Your task to perform on an android device: set the stopwatch Image 0: 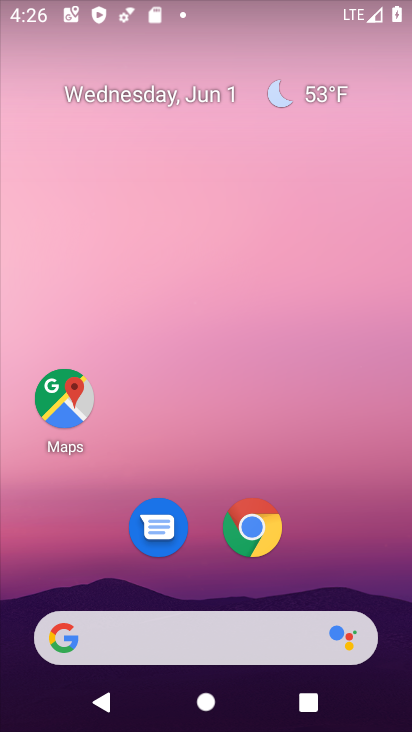
Step 0: drag from (341, 536) to (363, 65)
Your task to perform on an android device: set the stopwatch Image 1: 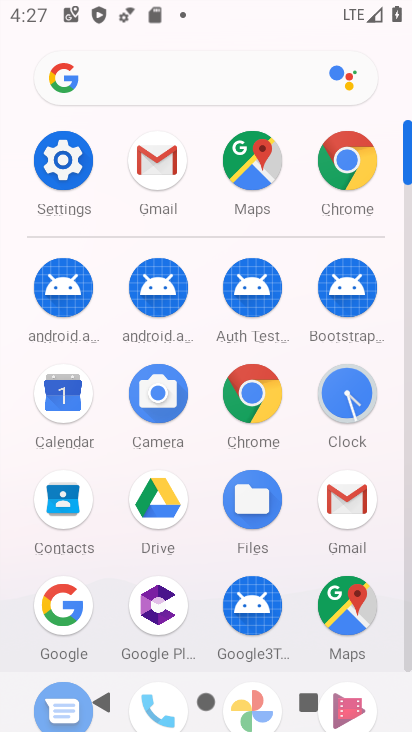
Step 1: click (347, 404)
Your task to perform on an android device: set the stopwatch Image 2: 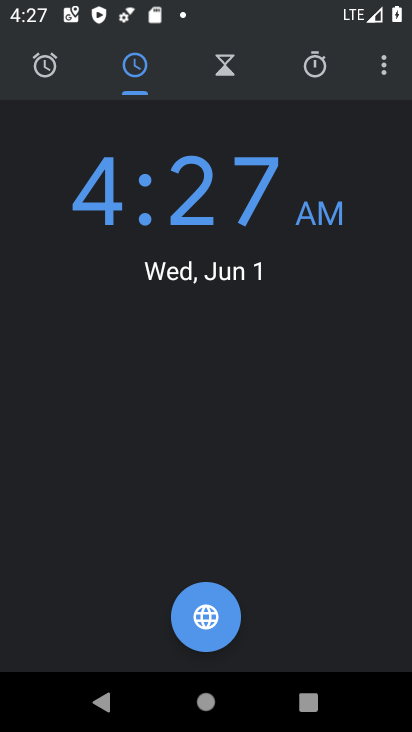
Step 2: click (315, 71)
Your task to perform on an android device: set the stopwatch Image 3: 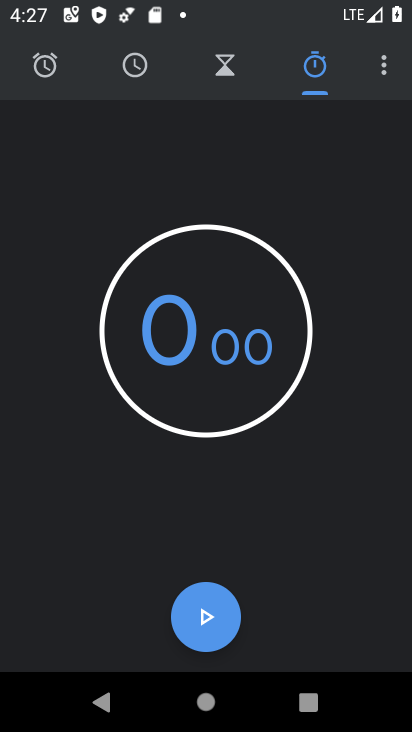
Step 3: click (210, 601)
Your task to perform on an android device: set the stopwatch Image 4: 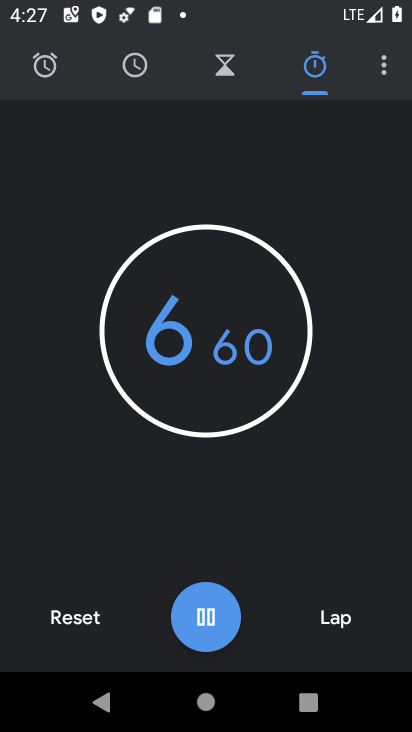
Step 4: task complete